Your task to perform on an android device: Go to Reddit.com Image 0: 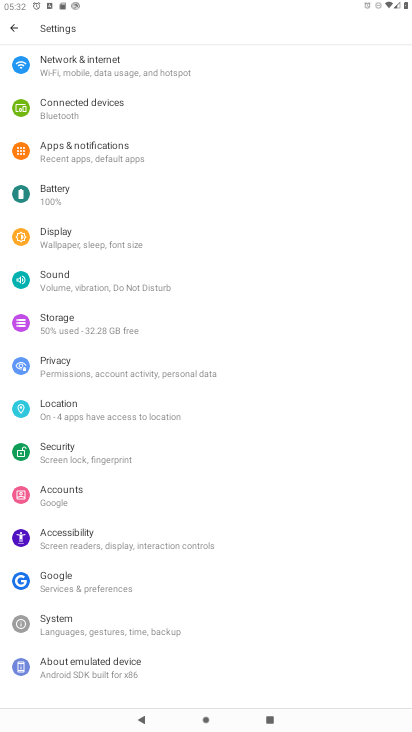
Step 0: press home button
Your task to perform on an android device: Go to Reddit.com Image 1: 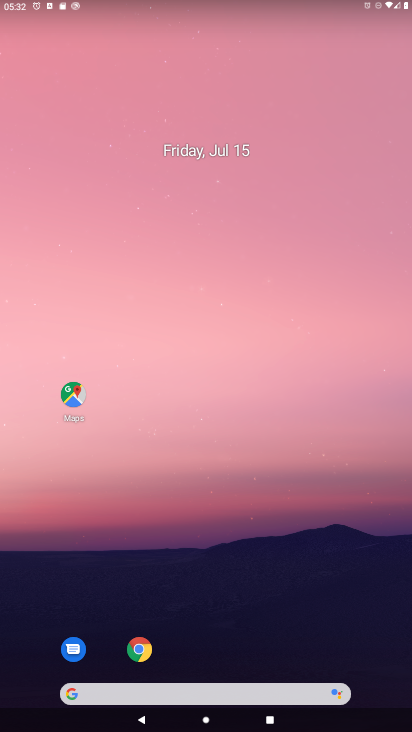
Step 1: click (139, 651)
Your task to perform on an android device: Go to Reddit.com Image 2: 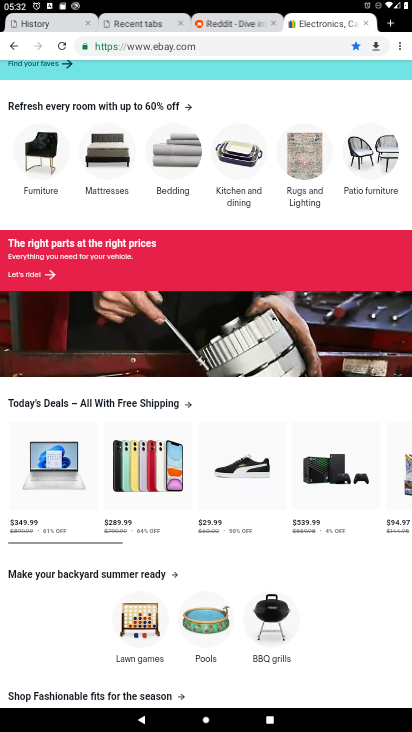
Step 2: click (208, 44)
Your task to perform on an android device: Go to Reddit.com Image 3: 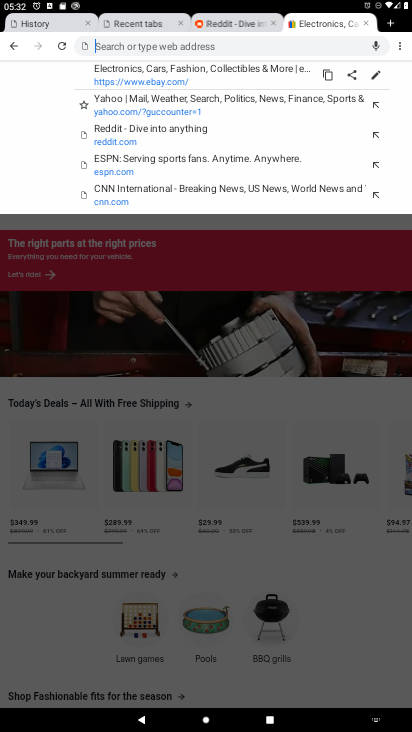
Step 3: type "Reddit.com"
Your task to perform on an android device: Go to Reddit.com Image 4: 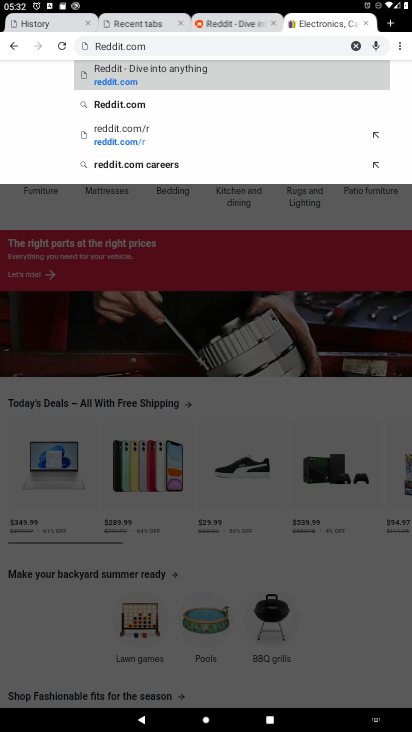
Step 4: click (128, 70)
Your task to perform on an android device: Go to Reddit.com Image 5: 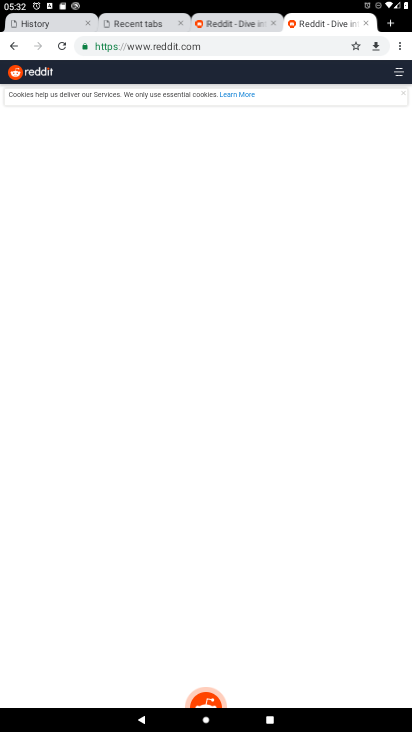
Step 5: task complete